Your task to perform on an android device: Find coffee shops on Maps Image 0: 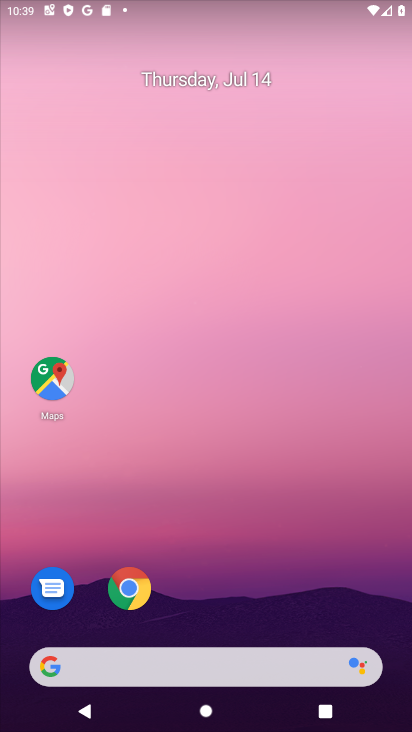
Step 0: press home button
Your task to perform on an android device: Find coffee shops on Maps Image 1: 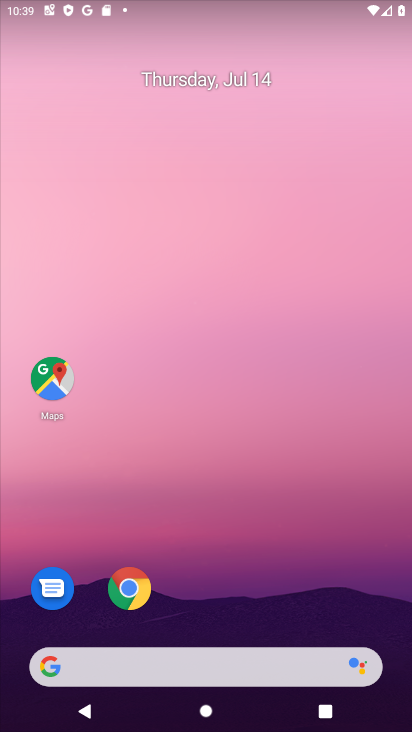
Step 1: click (58, 390)
Your task to perform on an android device: Find coffee shops on Maps Image 2: 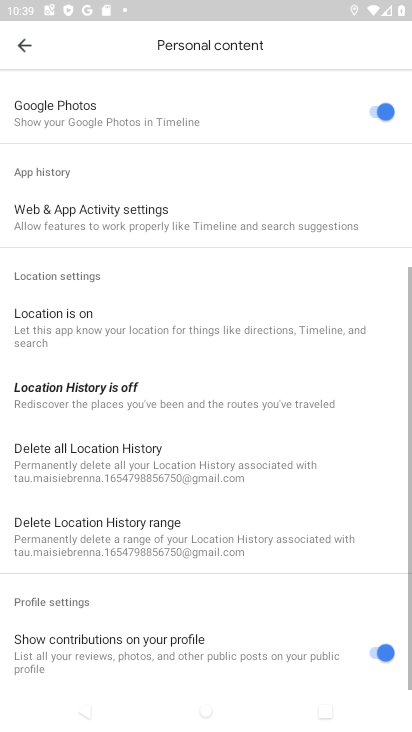
Step 2: click (25, 46)
Your task to perform on an android device: Find coffee shops on Maps Image 3: 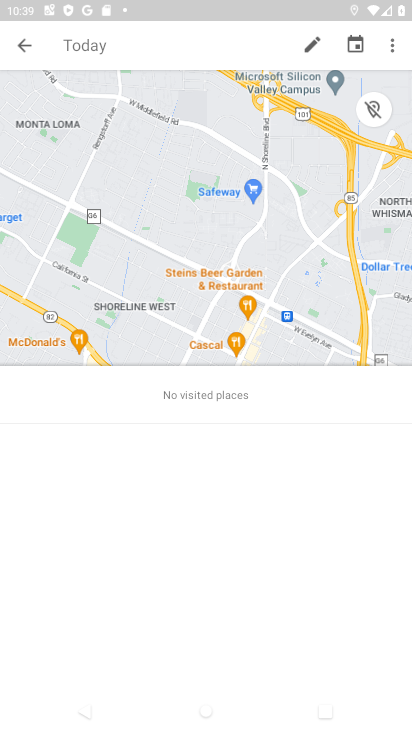
Step 3: click (25, 48)
Your task to perform on an android device: Find coffee shops on Maps Image 4: 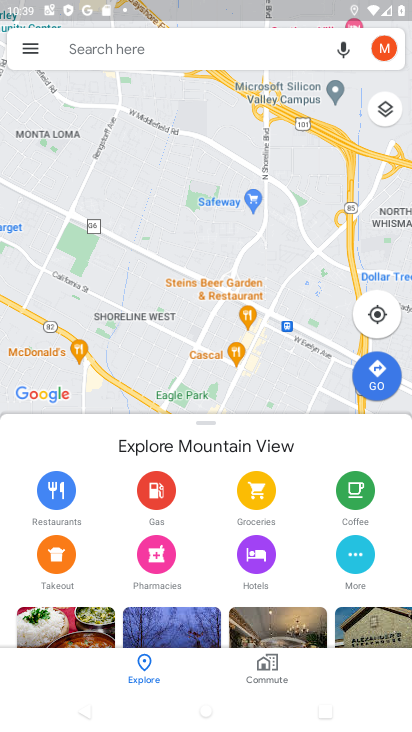
Step 4: click (177, 40)
Your task to perform on an android device: Find coffee shops on Maps Image 5: 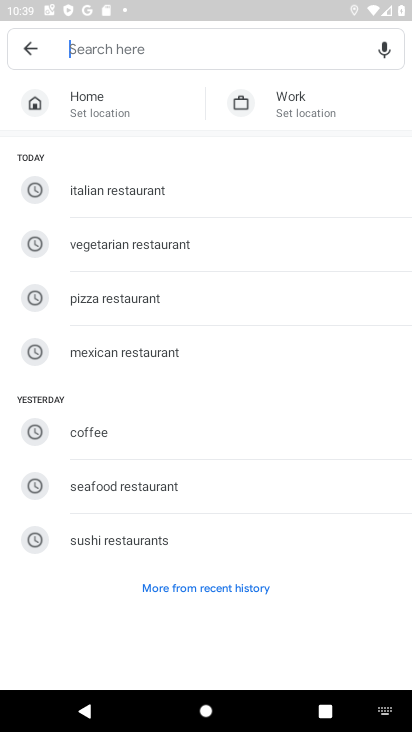
Step 5: click (88, 435)
Your task to perform on an android device: Find coffee shops on Maps Image 6: 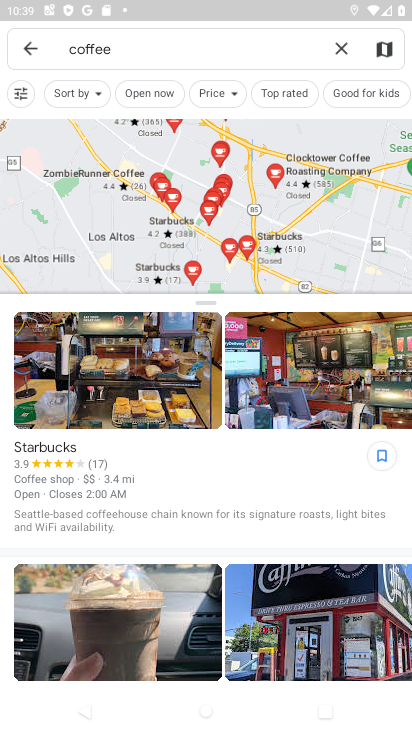
Step 6: task complete